Your task to perform on an android device: Go to display settings Image 0: 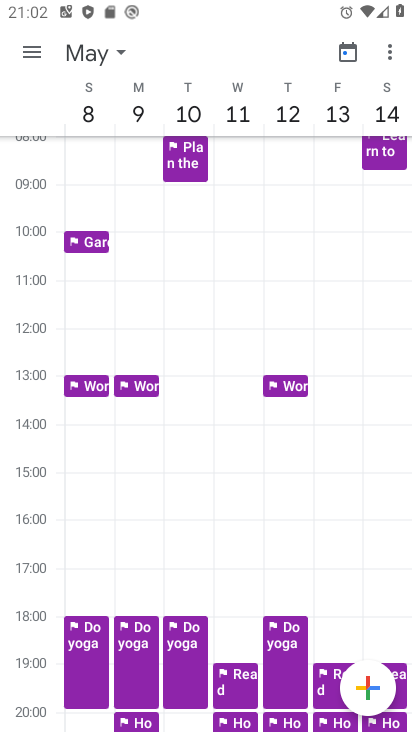
Step 0: press home button
Your task to perform on an android device: Go to display settings Image 1: 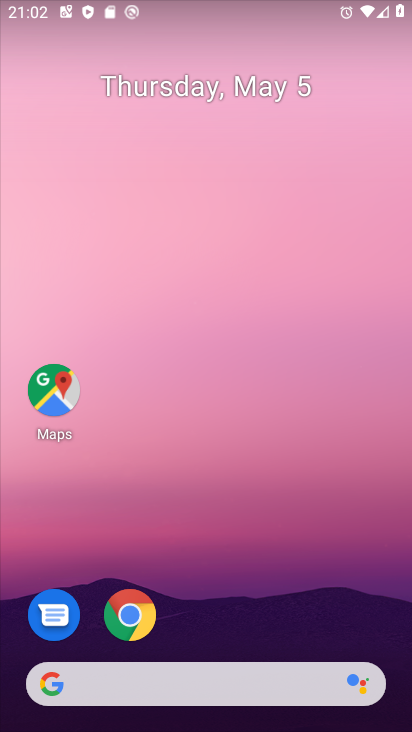
Step 1: drag from (238, 629) to (254, 24)
Your task to perform on an android device: Go to display settings Image 2: 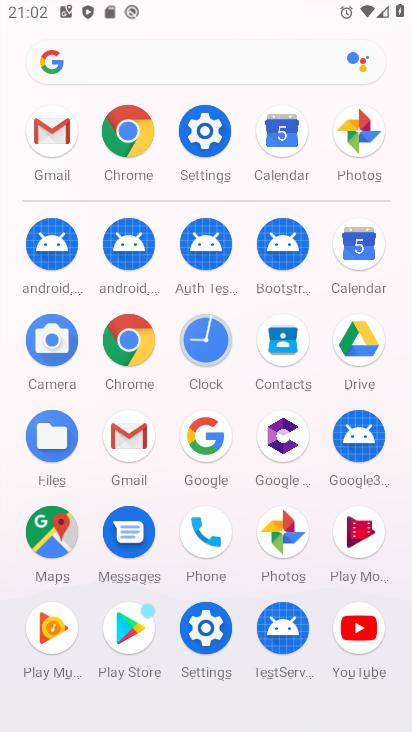
Step 2: click (194, 655)
Your task to perform on an android device: Go to display settings Image 3: 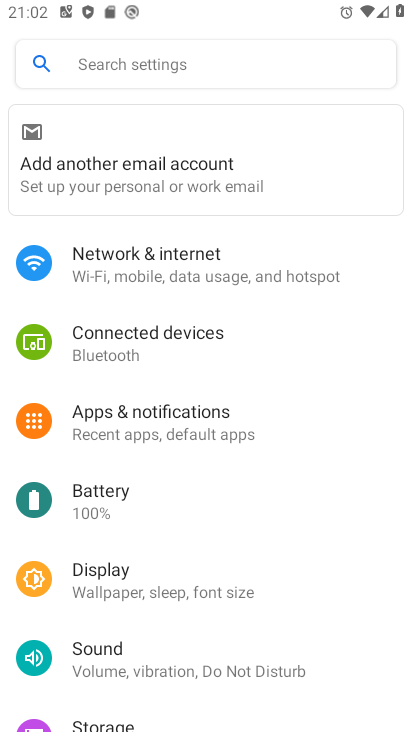
Step 3: click (161, 597)
Your task to perform on an android device: Go to display settings Image 4: 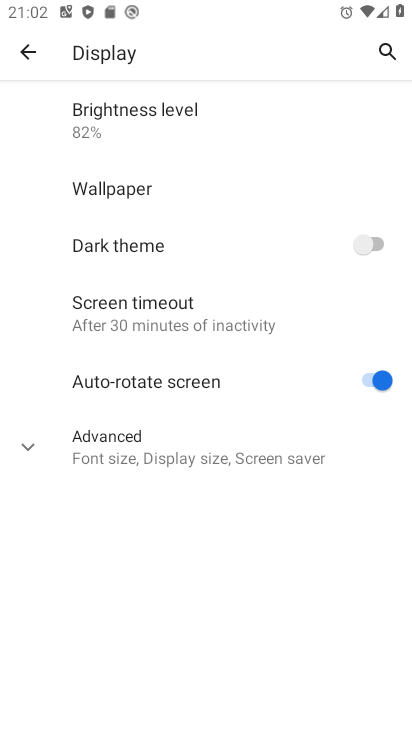
Step 4: task complete